Your task to perform on an android device: see creations saved in the google photos Image 0: 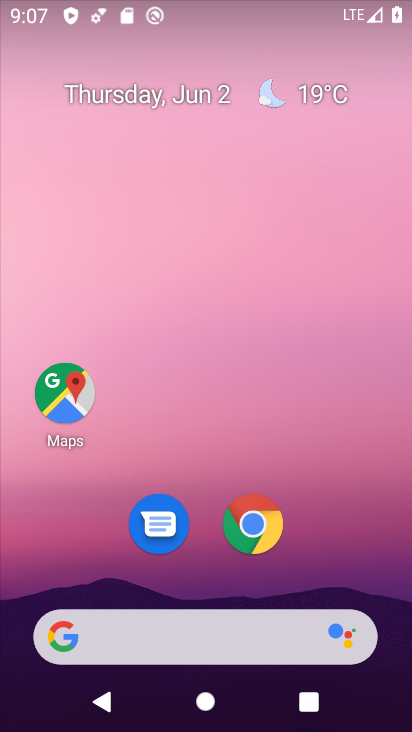
Step 0: drag from (338, 547) to (381, 16)
Your task to perform on an android device: see creations saved in the google photos Image 1: 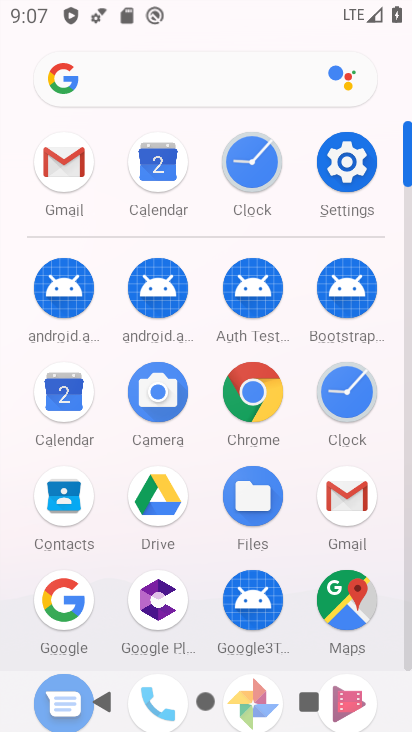
Step 1: drag from (317, 393) to (327, 151)
Your task to perform on an android device: see creations saved in the google photos Image 2: 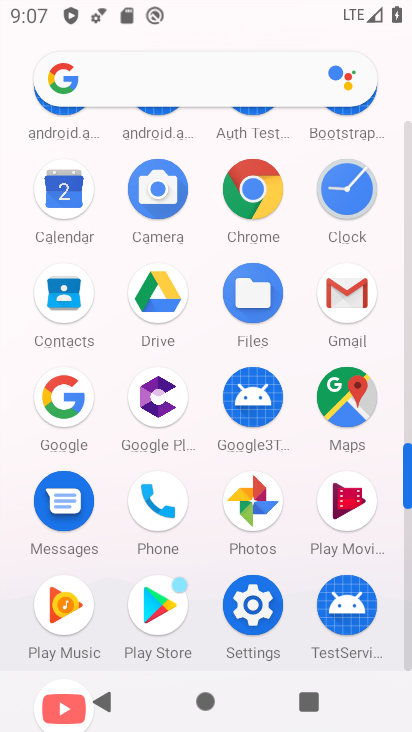
Step 2: click (260, 483)
Your task to perform on an android device: see creations saved in the google photos Image 3: 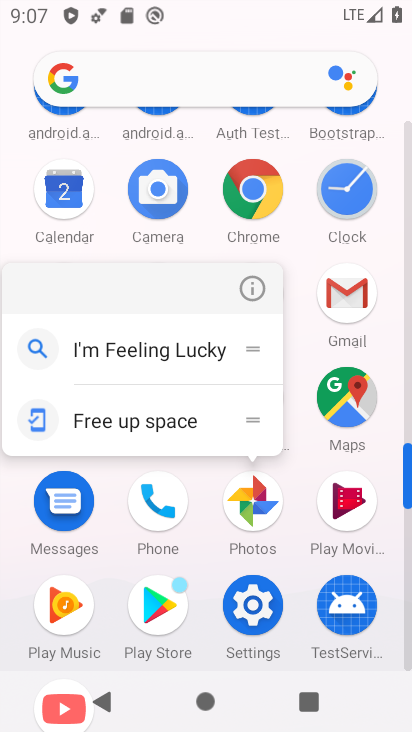
Step 3: click (260, 510)
Your task to perform on an android device: see creations saved in the google photos Image 4: 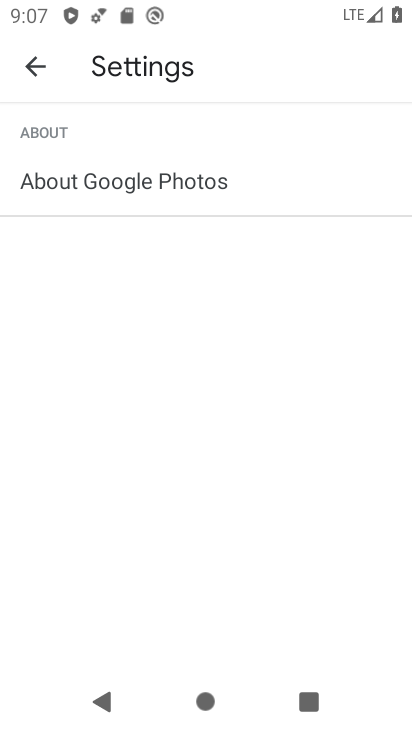
Step 4: click (34, 67)
Your task to perform on an android device: see creations saved in the google photos Image 5: 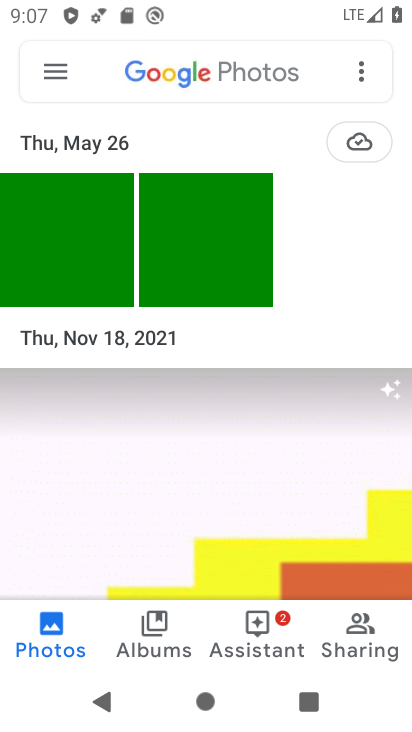
Step 5: click (237, 63)
Your task to perform on an android device: see creations saved in the google photos Image 6: 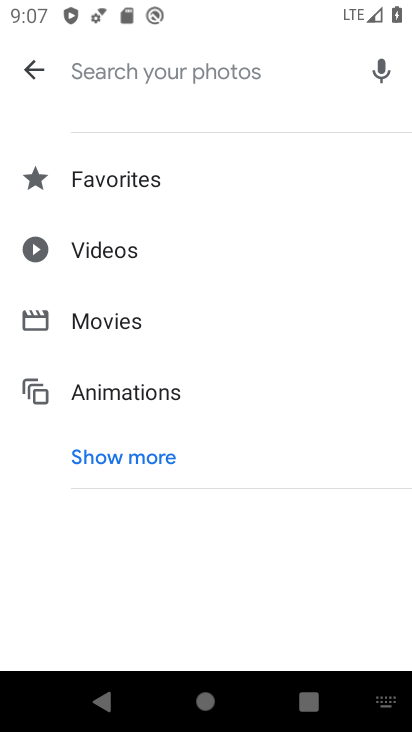
Step 6: click (115, 448)
Your task to perform on an android device: see creations saved in the google photos Image 7: 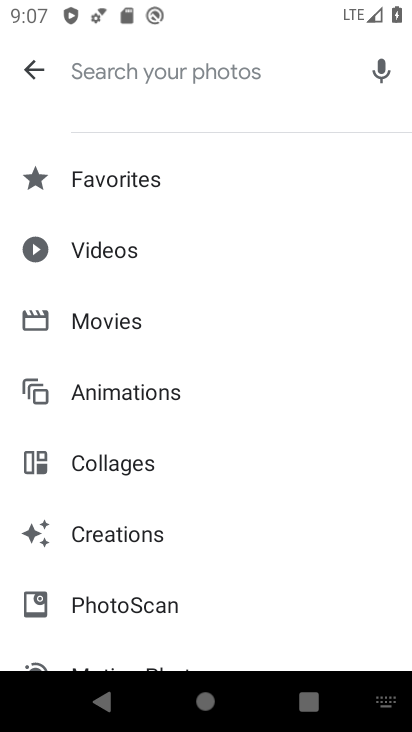
Step 7: click (123, 539)
Your task to perform on an android device: see creations saved in the google photos Image 8: 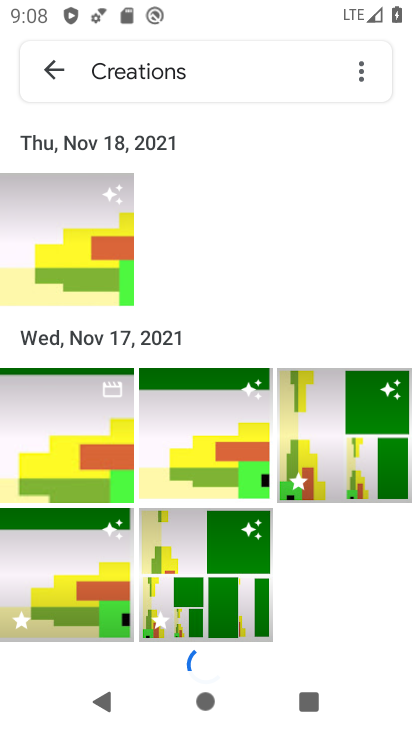
Step 8: task complete